Your task to perform on an android device: choose inbox layout in the gmail app Image 0: 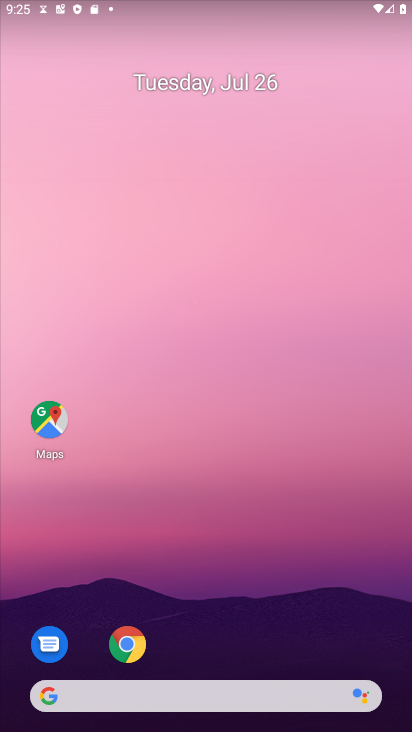
Step 0: drag from (236, 618) to (247, 189)
Your task to perform on an android device: choose inbox layout in the gmail app Image 1: 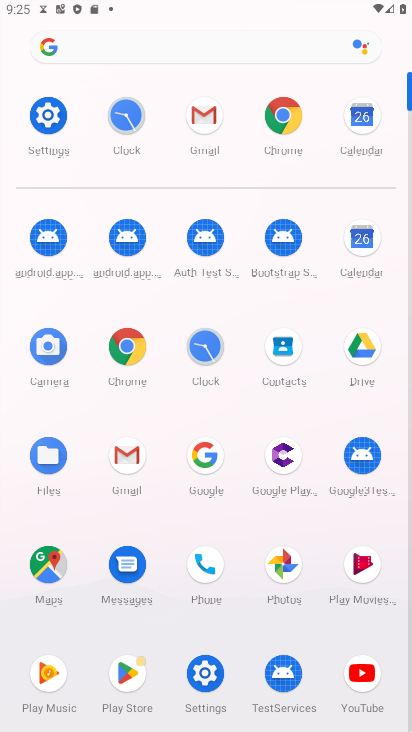
Step 1: click (128, 474)
Your task to perform on an android device: choose inbox layout in the gmail app Image 2: 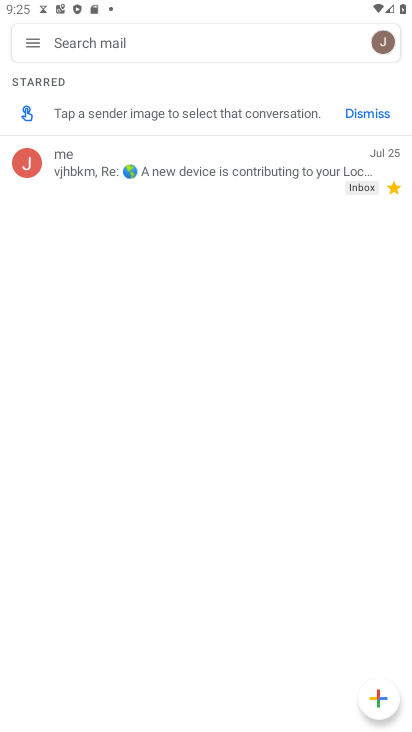
Step 2: click (29, 48)
Your task to perform on an android device: choose inbox layout in the gmail app Image 3: 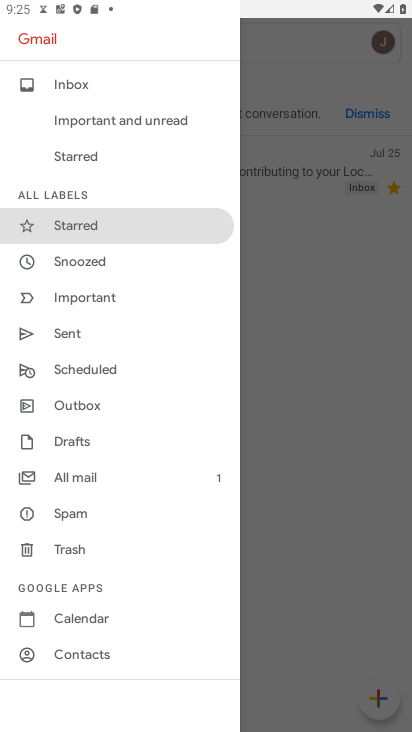
Step 3: drag from (93, 605) to (120, 357)
Your task to perform on an android device: choose inbox layout in the gmail app Image 4: 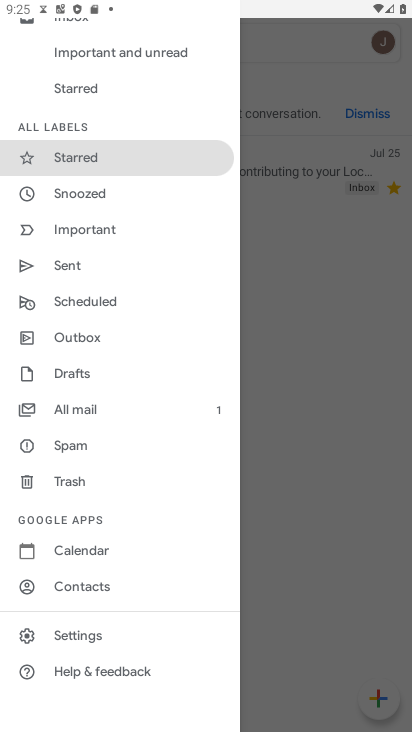
Step 4: click (80, 631)
Your task to perform on an android device: choose inbox layout in the gmail app Image 5: 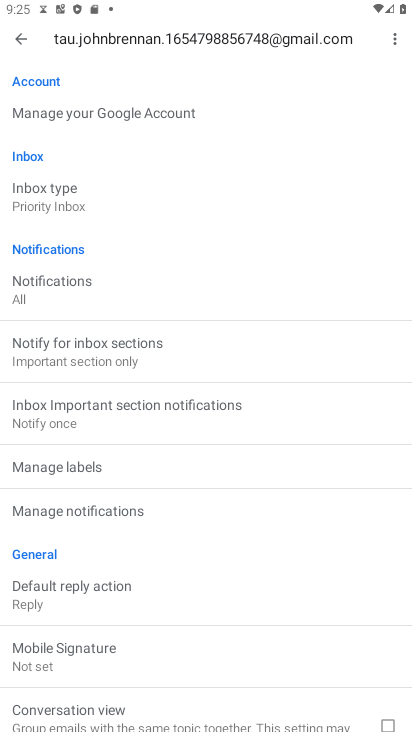
Step 5: click (76, 190)
Your task to perform on an android device: choose inbox layout in the gmail app Image 6: 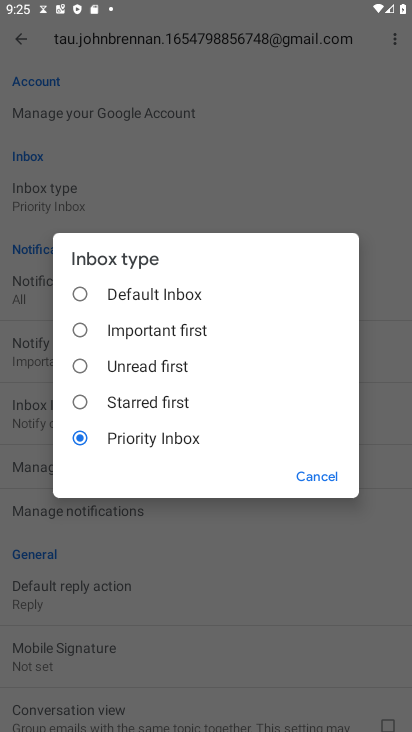
Step 6: click (104, 305)
Your task to perform on an android device: choose inbox layout in the gmail app Image 7: 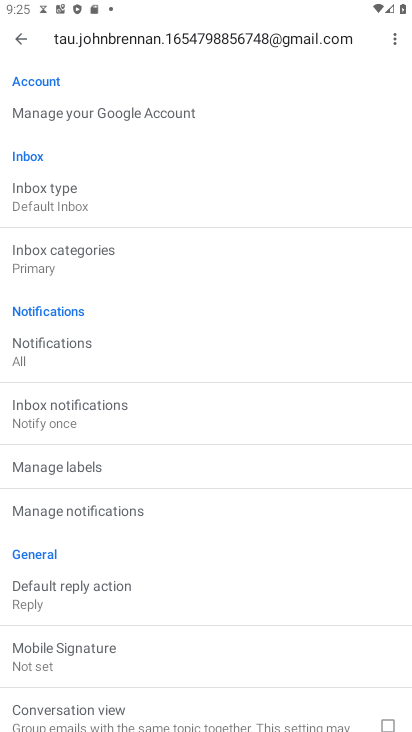
Step 7: task complete